Your task to perform on an android device: Check the news Image 0: 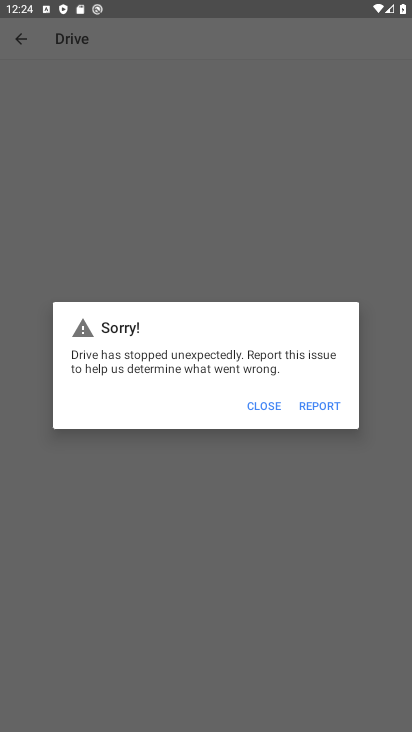
Step 0: press home button
Your task to perform on an android device: Check the news Image 1: 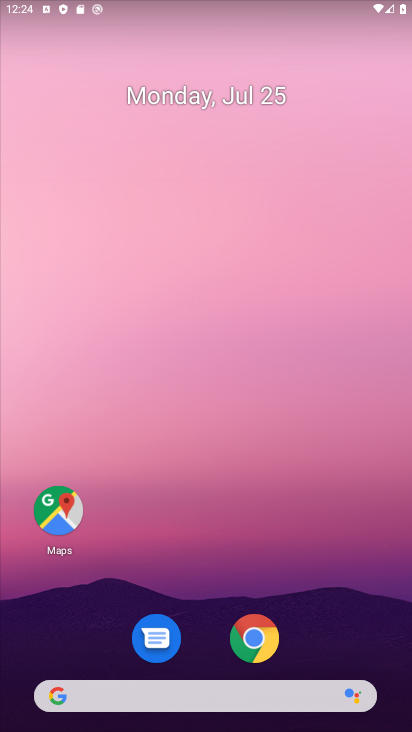
Step 1: click (151, 703)
Your task to perform on an android device: Check the news Image 2: 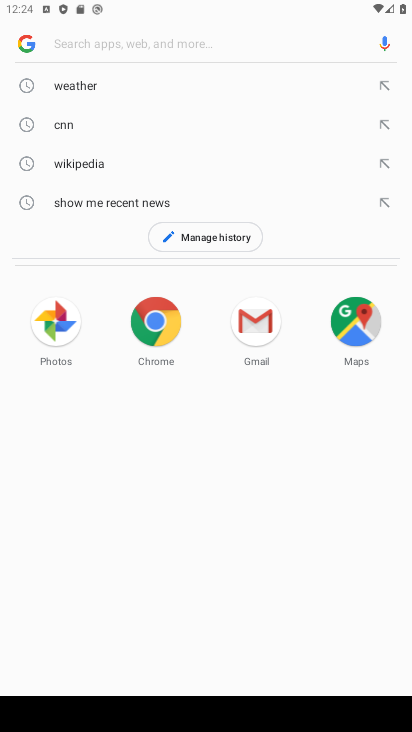
Step 2: click (30, 44)
Your task to perform on an android device: Check the news Image 3: 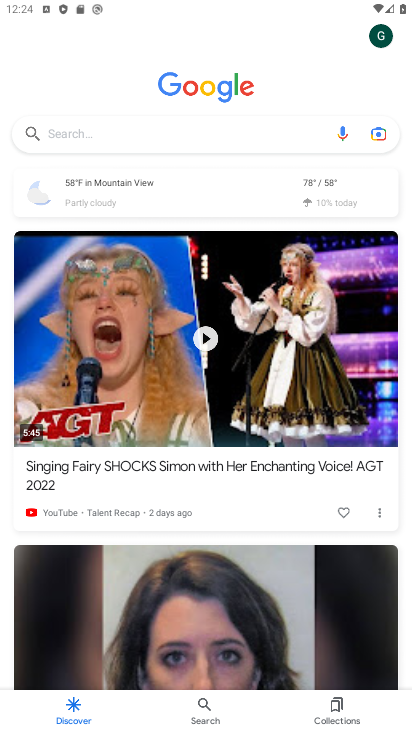
Step 3: task complete